Your task to perform on an android device: snooze an email in the gmail app Image 0: 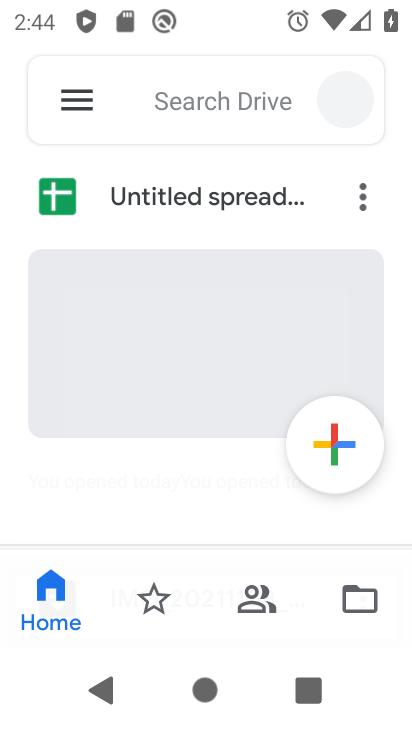
Step 0: press home button
Your task to perform on an android device: snooze an email in the gmail app Image 1: 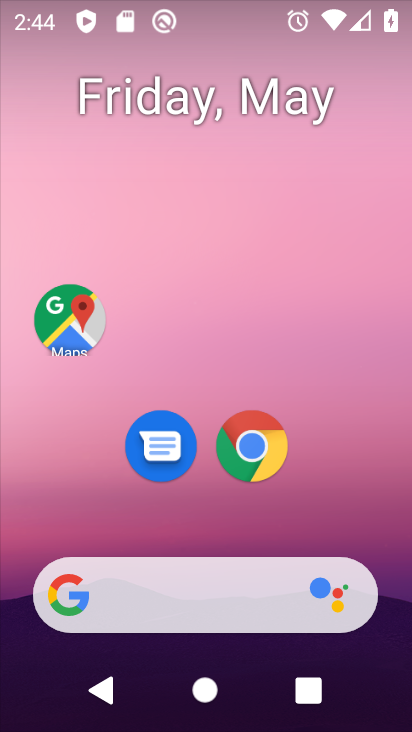
Step 1: drag from (399, 548) to (320, 82)
Your task to perform on an android device: snooze an email in the gmail app Image 2: 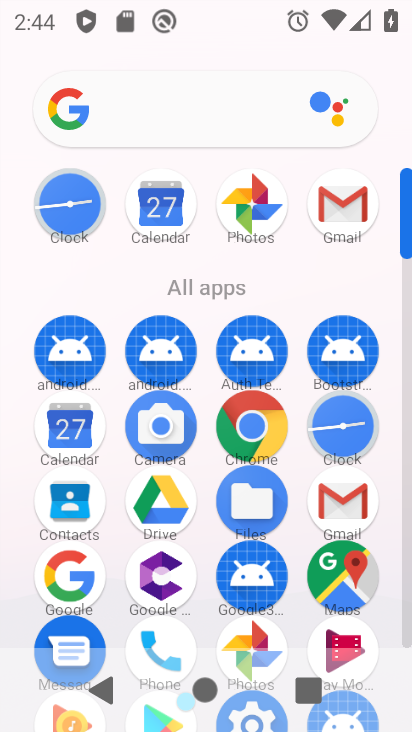
Step 2: click (347, 207)
Your task to perform on an android device: snooze an email in the gmail app Image 3: 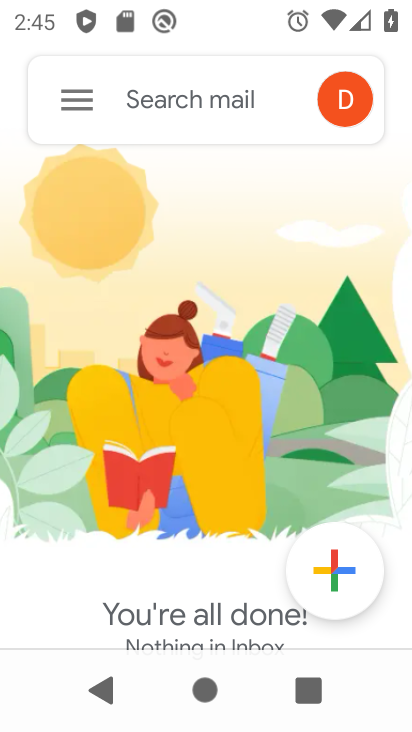
Step 3: task complete